Your task to perform on an android device: Search for sushi restaurants on Maps Image 0: 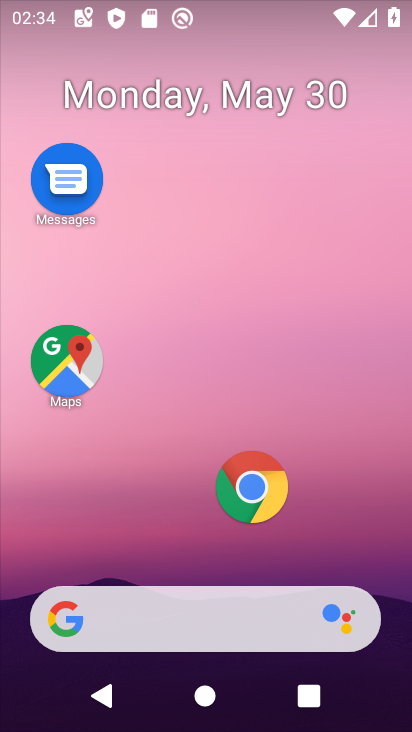
Step 0: click (58, 367)
Your task to perform on an android device: Search for sushi restaurants on Maps Image 1: 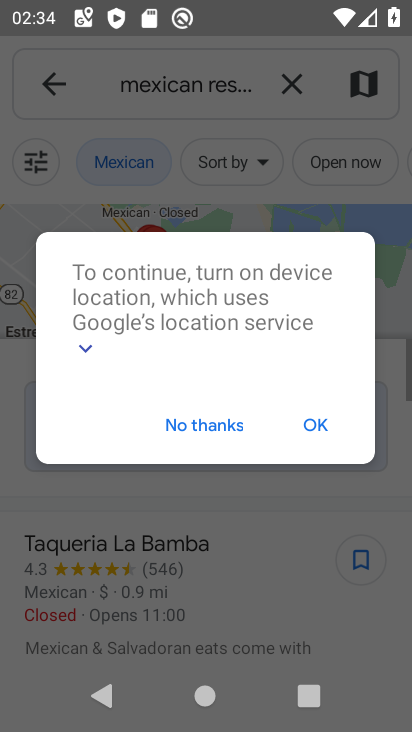
Step 1: click (197, 424)
Your task to perform on an android device: Search for sushi restaurants on Maps Image 2: 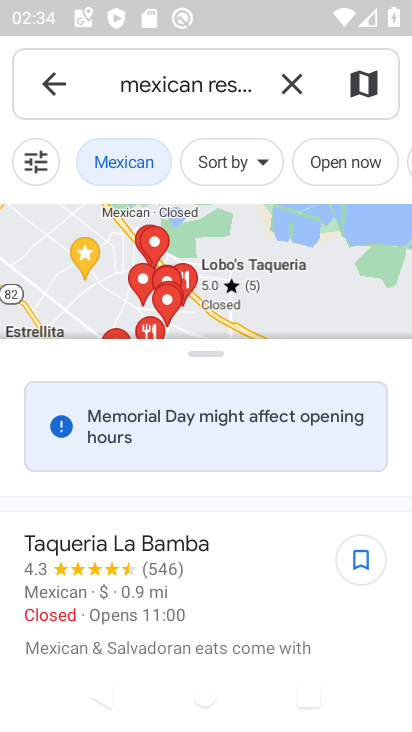
Step 2: click (285, 78)
Your task to perform on an android device: Search for sushi restaurants on Maps Image 3: 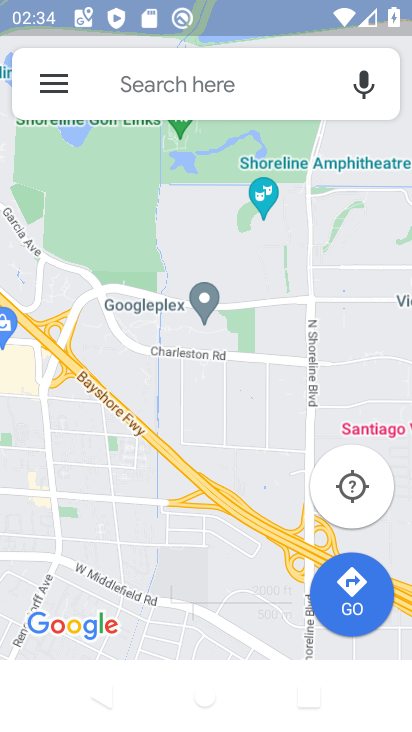
Step 3: click (168, 85)
Your task to perform on an android device: Search for sushi restaurants on Maps Image 4: 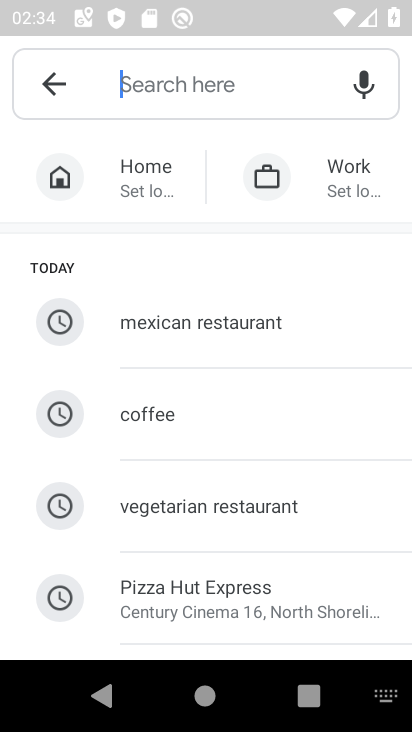
Step 4: drag from (214, 543) to (241, 139)
Your task to perform on an android device: Search for sushi restaurants on Maps Image 5: 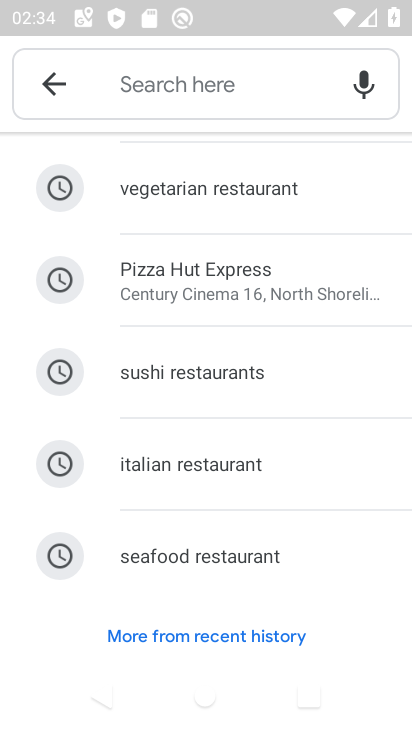
Step 5: click (179, 379)
Your task to perform on an android device: Search for sushi restaurants on Maps Image 6: 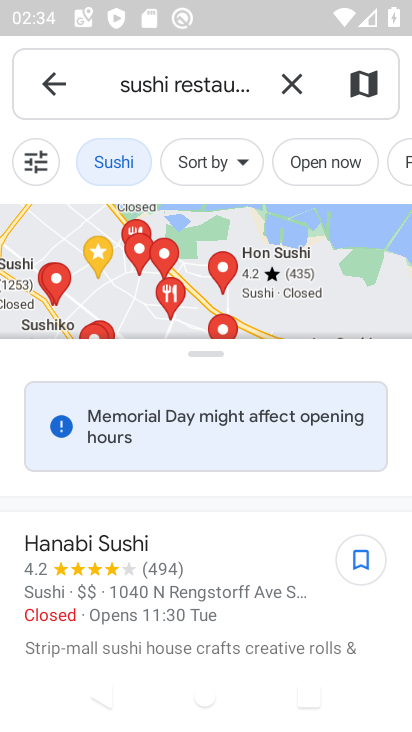
Step 6: task complete